Your task to perform on an android device: How much does a 2 bedroom apartment rent for in Denver? Image 0: 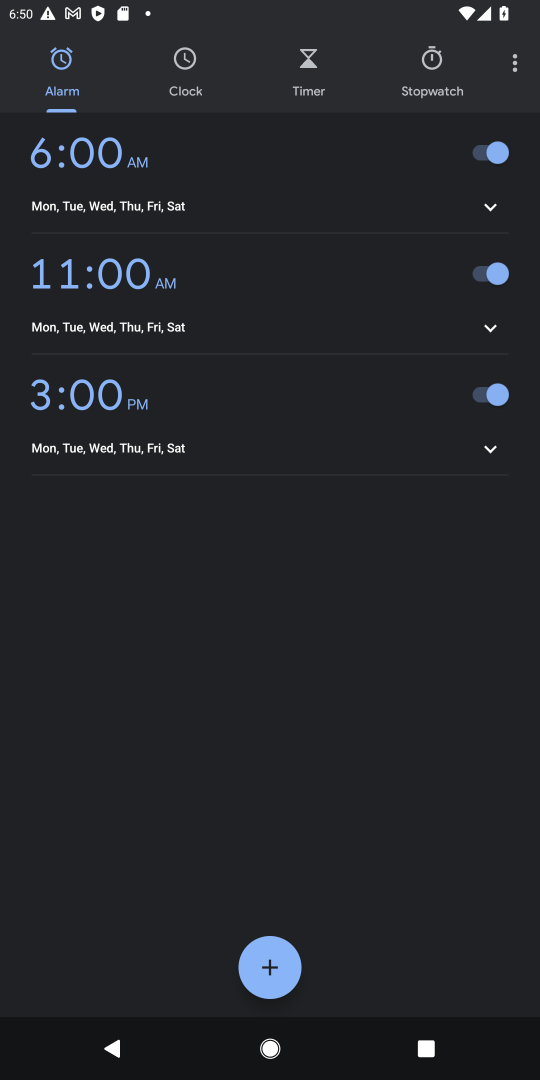
Step 0: press home button
Your task to perform on an android device: How much does a 2 bedroom apartment rent for in Denver? Image 1: 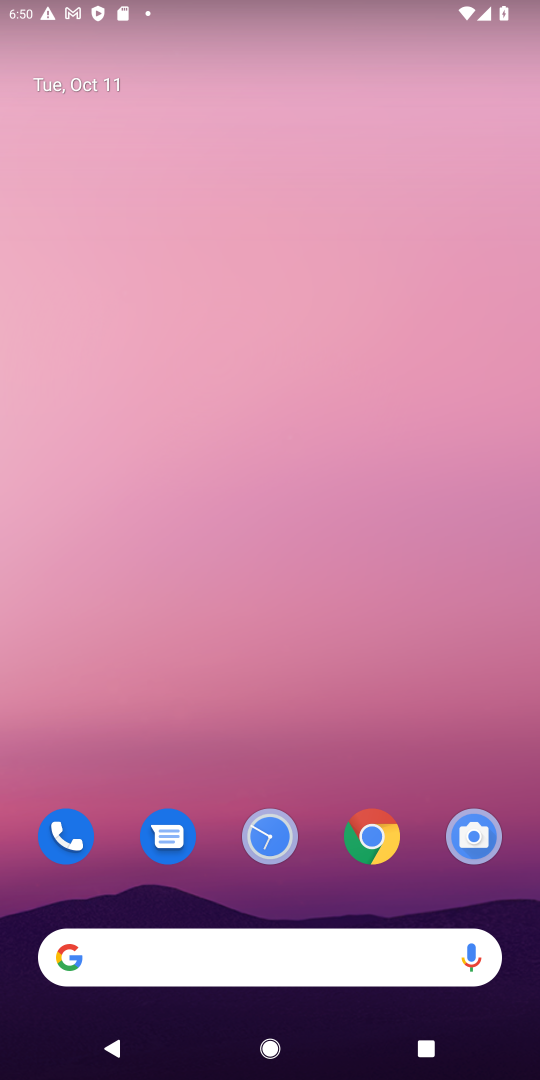
Step 1: click (372, 835)
Your task to perform on an android device: How much does a 2 bedroom apartment rent for in Denver? Image 2: 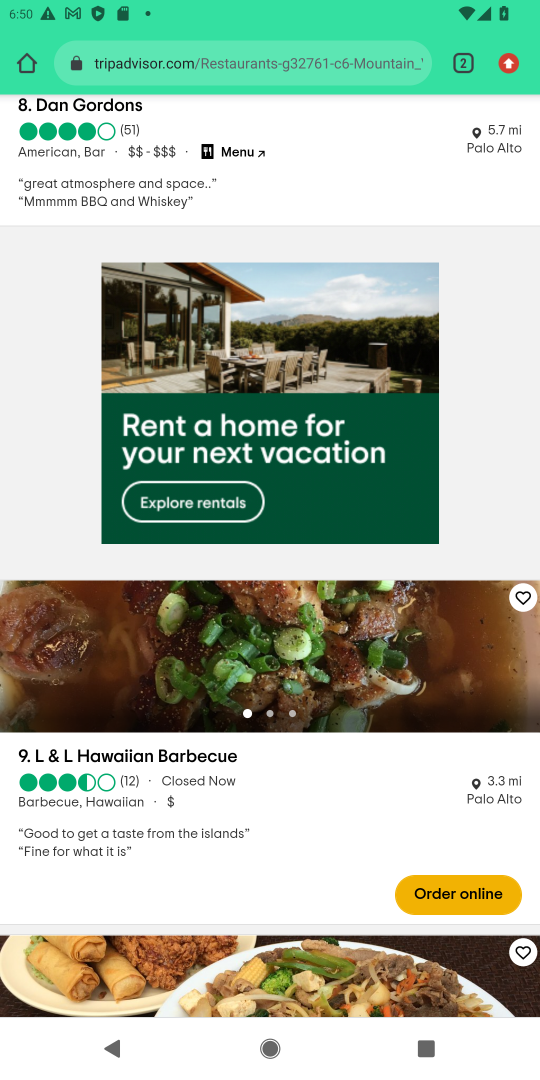
Step 2: click (219, 44)
Your task to perform on an android device: How much does a 2 bedroom apartment rent for in Denver? Image 3: 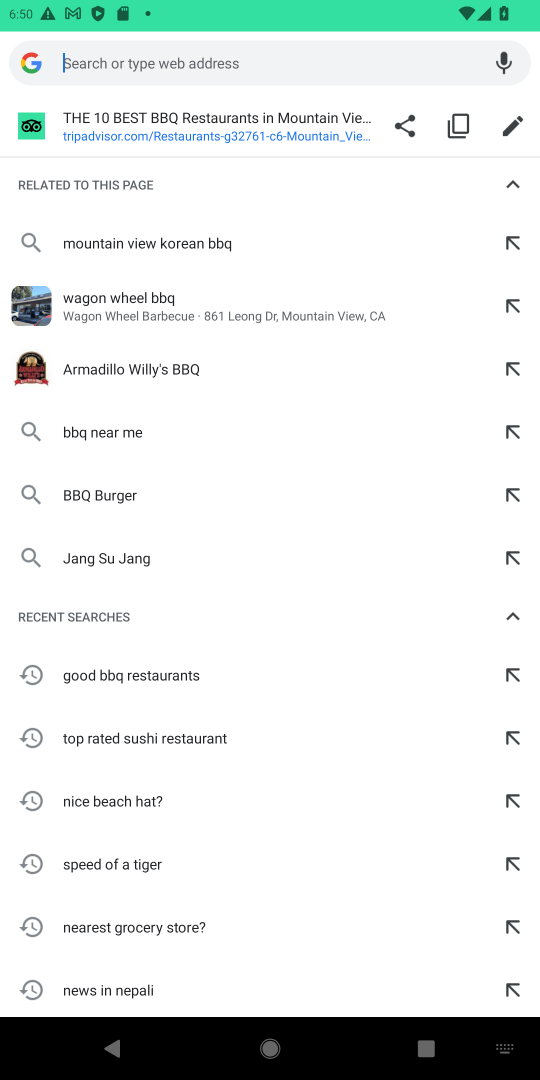
Step 3: type "2 bedroom apartment rent for in Denver?"
Your task to perform on an android device: How much does a 2 bedroom apartment rent for in Denver? Image 4: 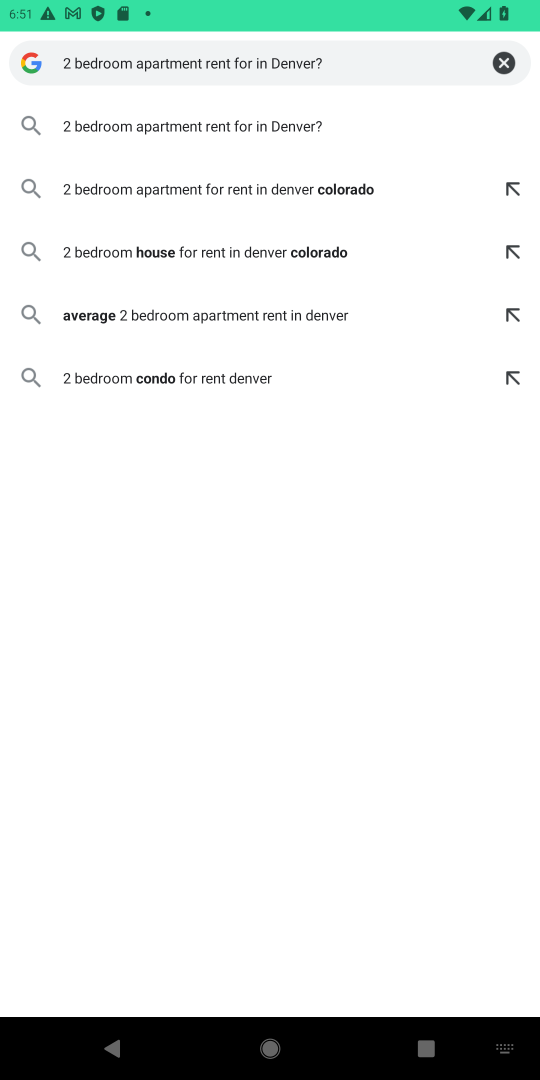
Step 4: click (155, 131)
Your task to perform on an android device: How much does a 2 bedroom apartment rent for in Denver? Image 5: 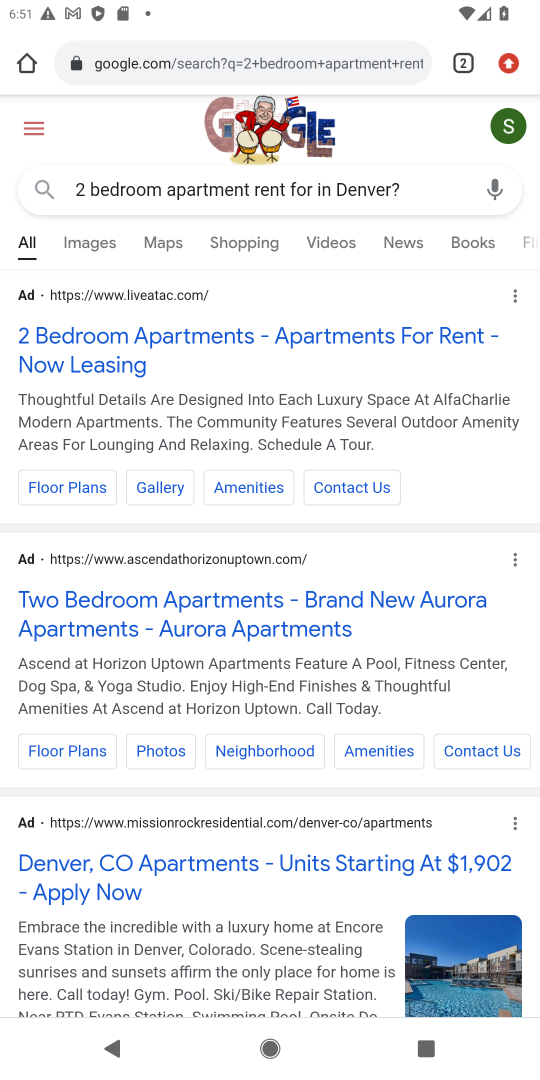
Step 5: drag from (194, 656) to (221, 344)
Your task to perform on an android device: How much does a 2 bedroom apartment rent for in Denver? Image 6: 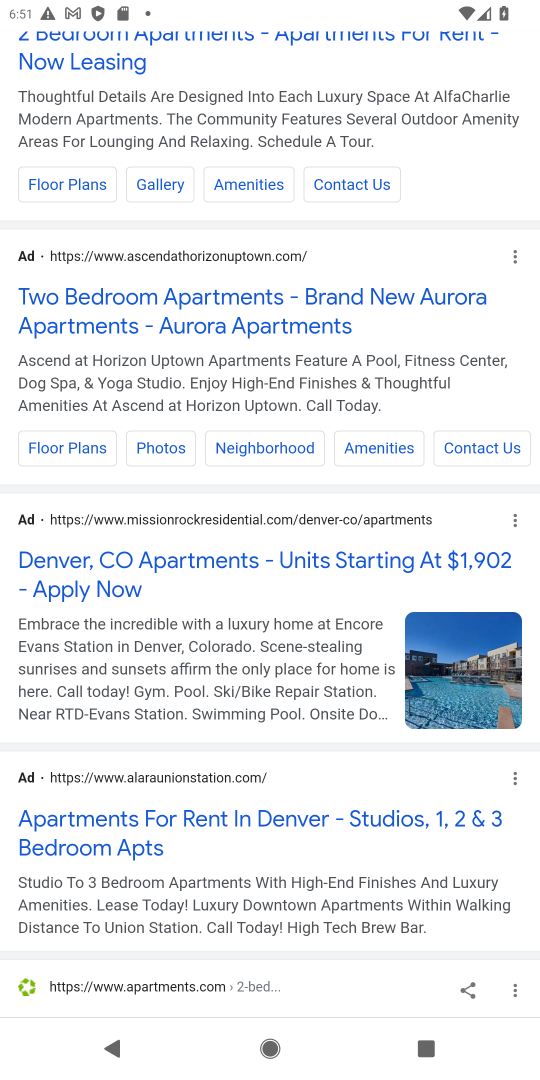
Step 6: drag from (221, 664) to (224, 569)
Your task to perform on an android device: How much does a 2 bedroom apartment rent for in Denver? Image 7: 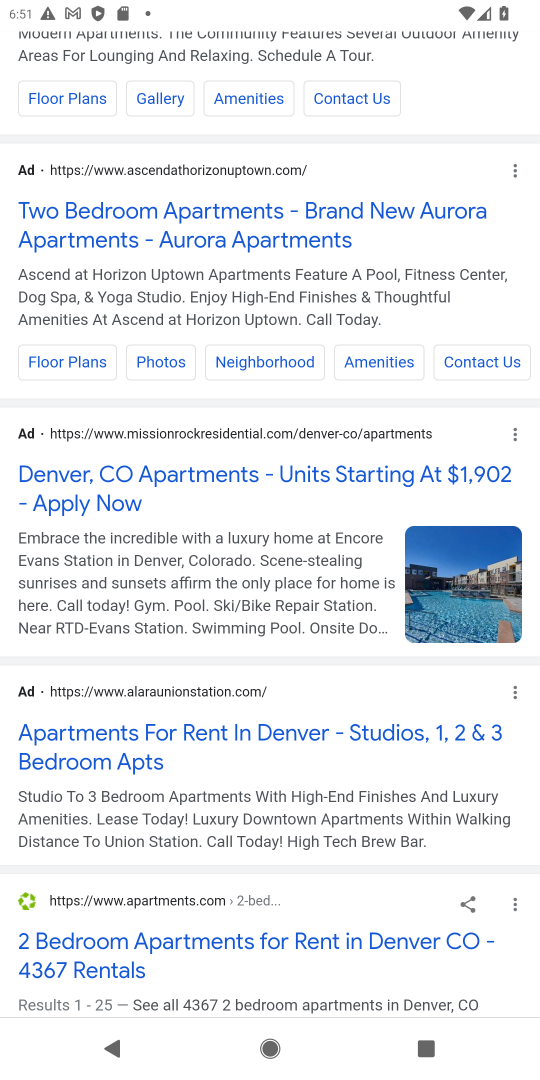
Step 7: drag from (257, 824) to (268, 514)
Your task to perform on an android device: How much does a 2 bedroom apartment rent for in Denver? Image 8: 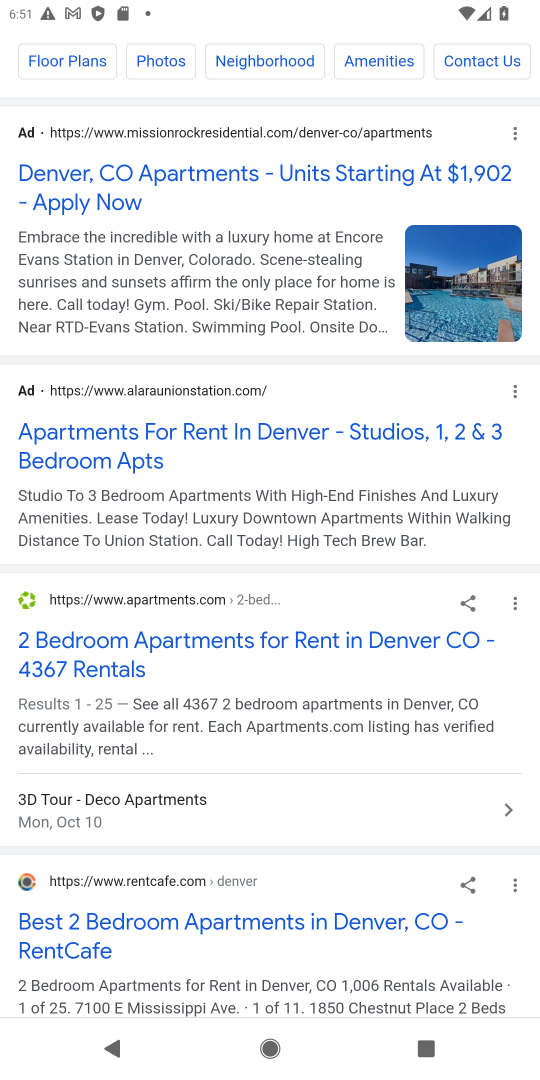
Step 8: click (128, 646)
Your task to perform on an android device: How much does a 2 bedroom apartment rent for in Denver? Image 9: 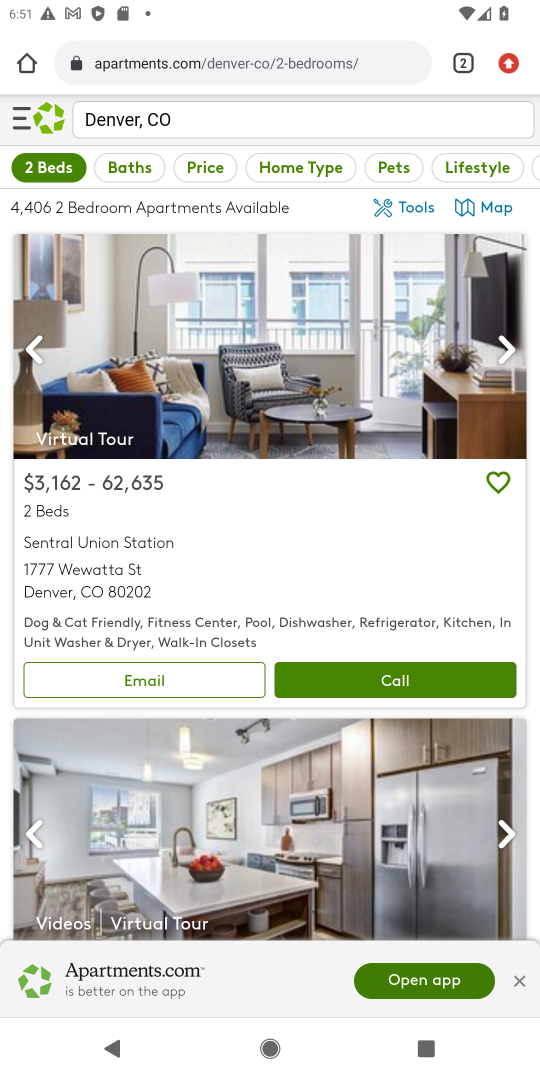
Step 9: task complete